Your task to perform on an android device: turn off notifications settings in the gmail app Image 0: 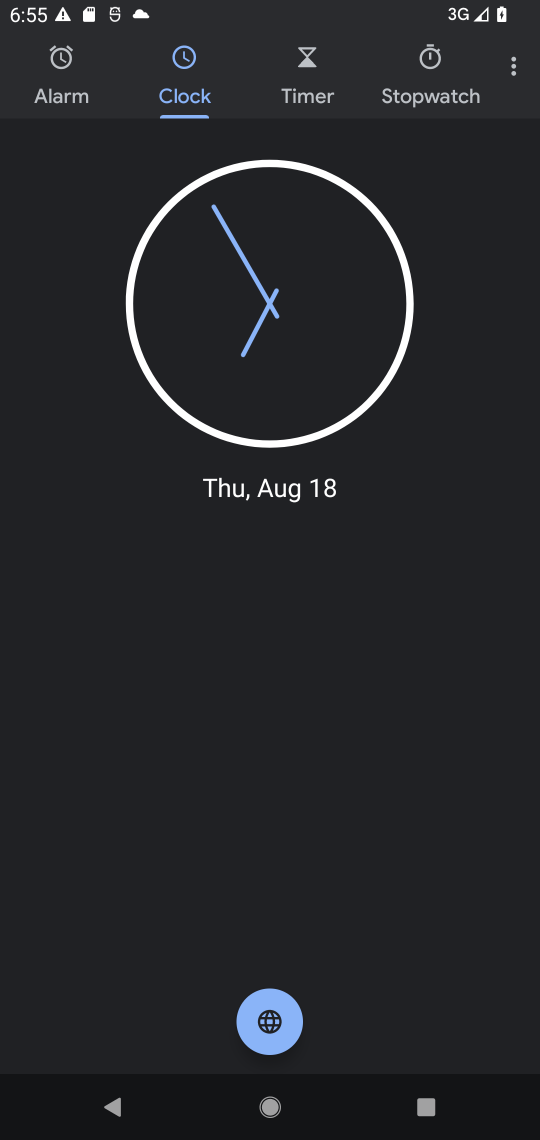
Step 0: press home button
Your task to perform on an android device: turn off notifications settings in the gmail app Image 1: 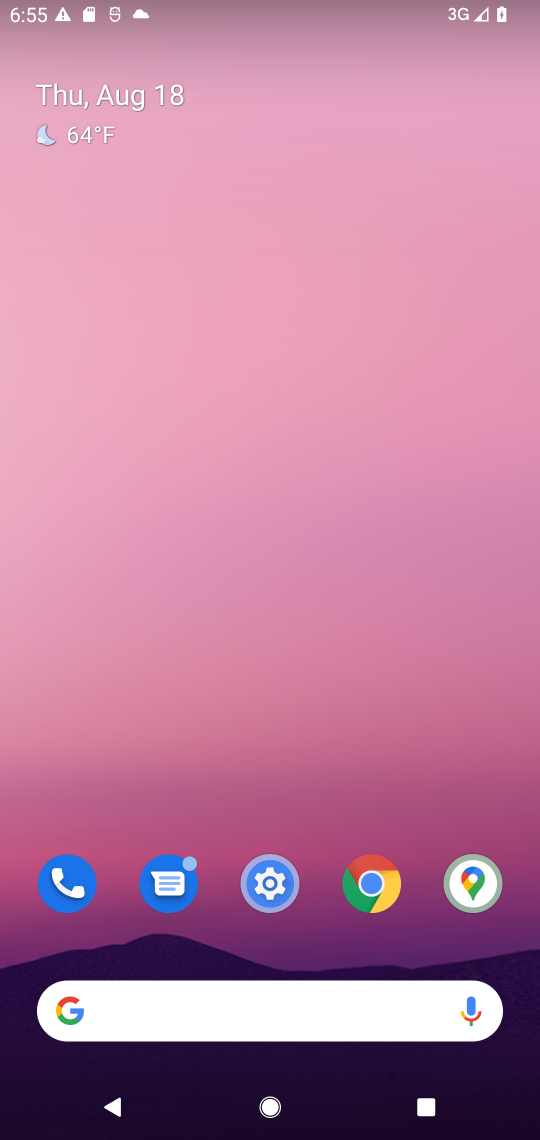
Step 1: drag from (34, 1062) to (69, 419)
Your task to perform on an android device: turn off notifications settings in the gmail app Image 2: 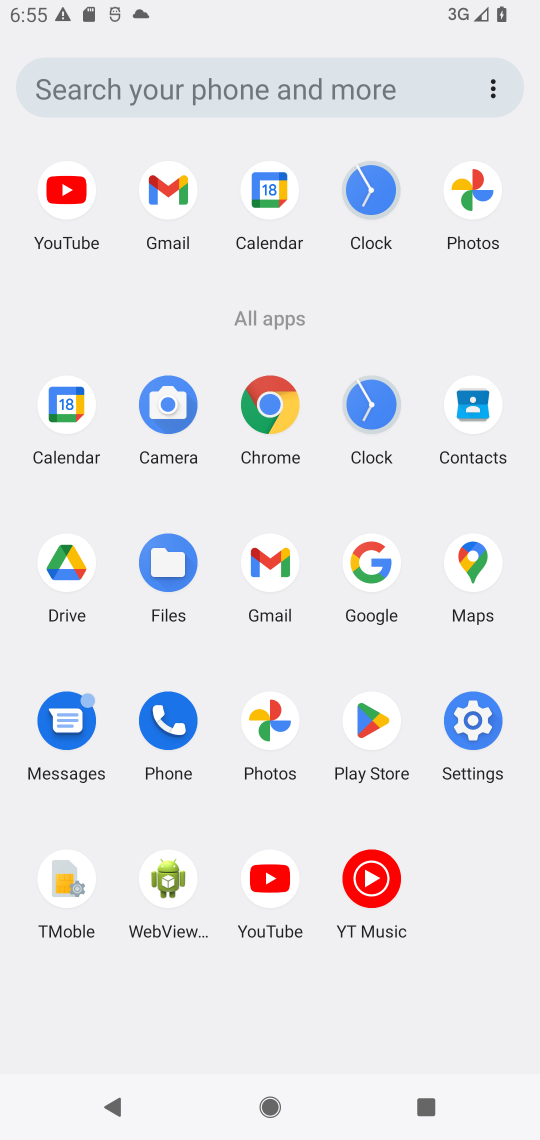
Step 2: click (280, 578)
Your task to perform on an android device: turn off notifications settings in the gmail app Image 3: 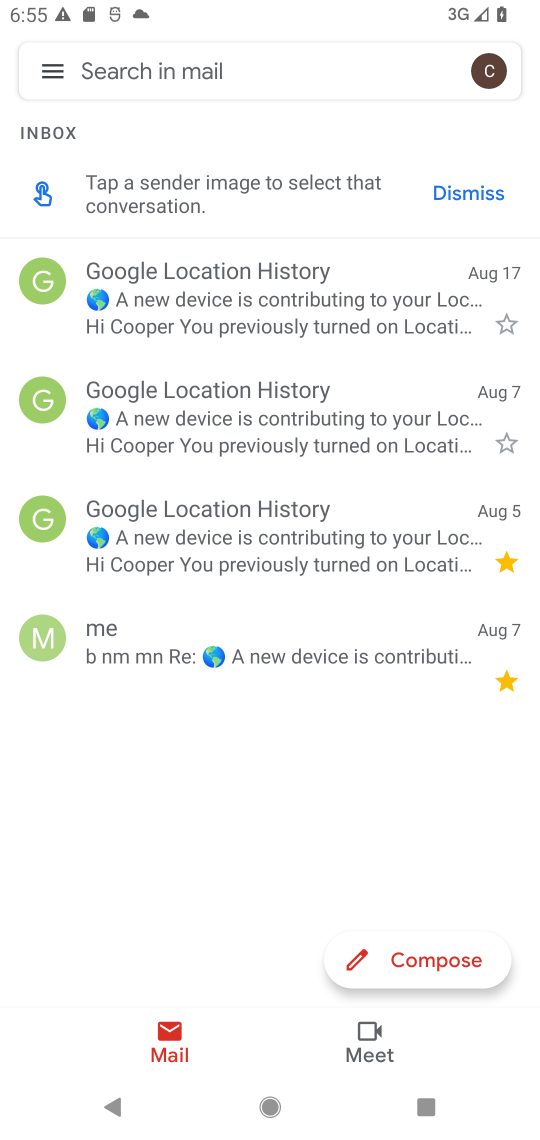
Step 3: click (50, 84)
Your task to perform on an android device: turn off notifications settings in the gmail app Image 4: 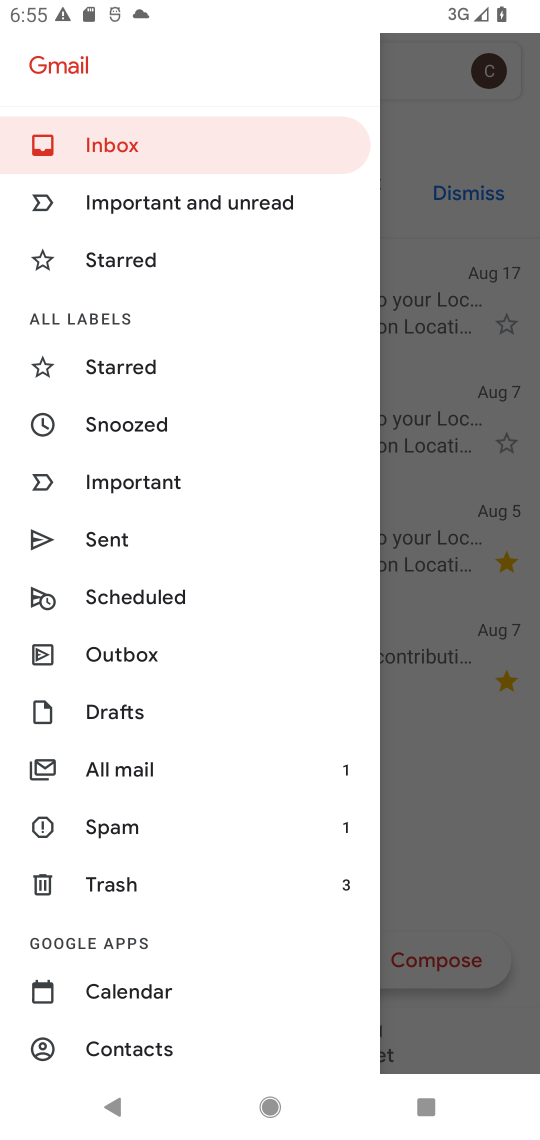
Step 4: drag from (273, 1023) to (204, 520)
Your task to perform on an android device: turn off notifications settings in the gmail app Image 5: 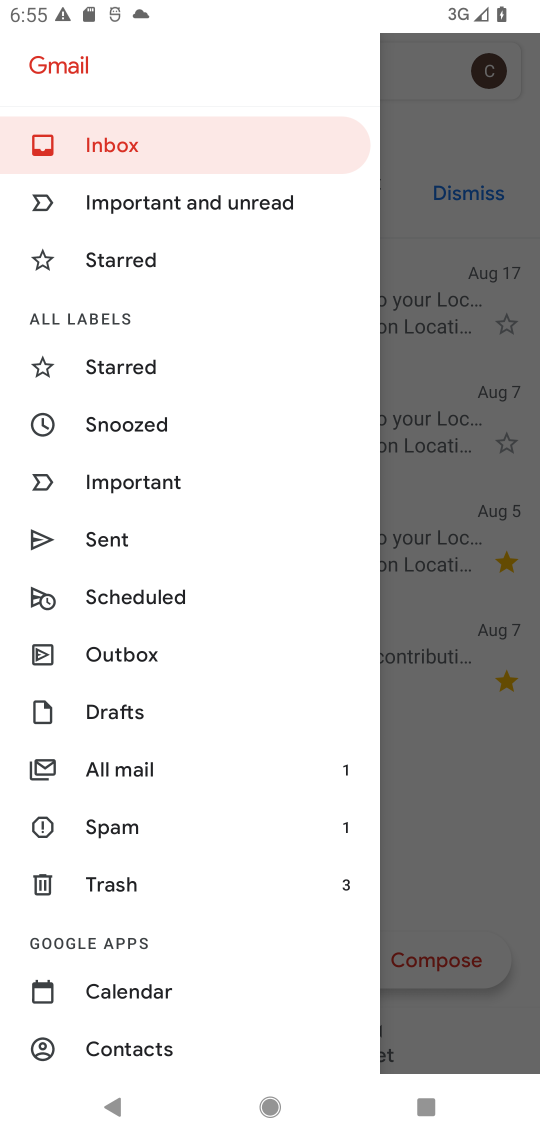
Step 5: drag from (252, 992) to (428, 243)
Your task to perform on an android device: turn off notifications settings in the gmail app Image 6: 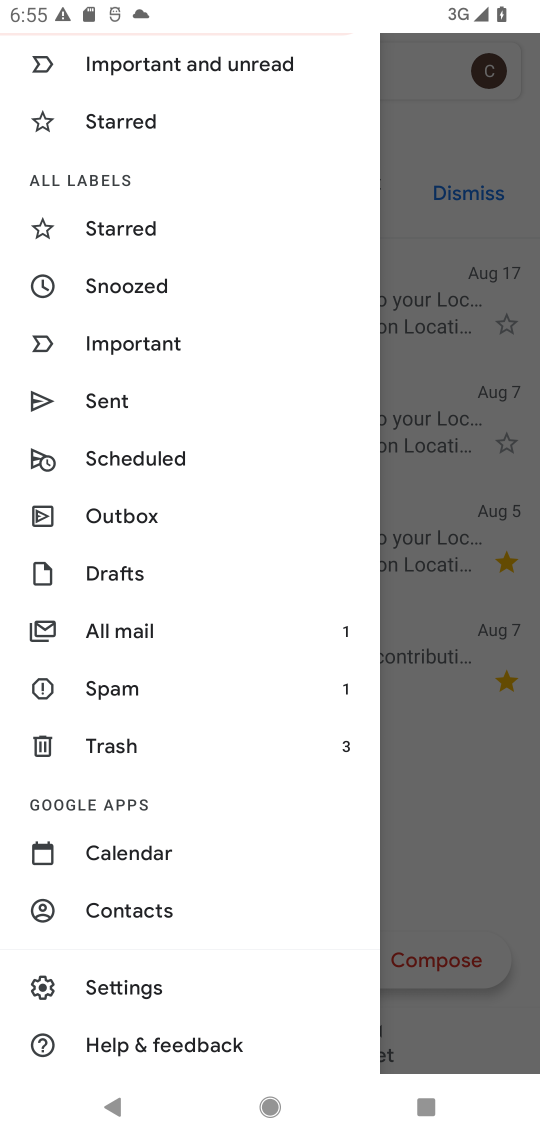
Step 6: click (104, 982)
Your task to perform on an android device: turn off notifications settings in the gmail app Image 7: 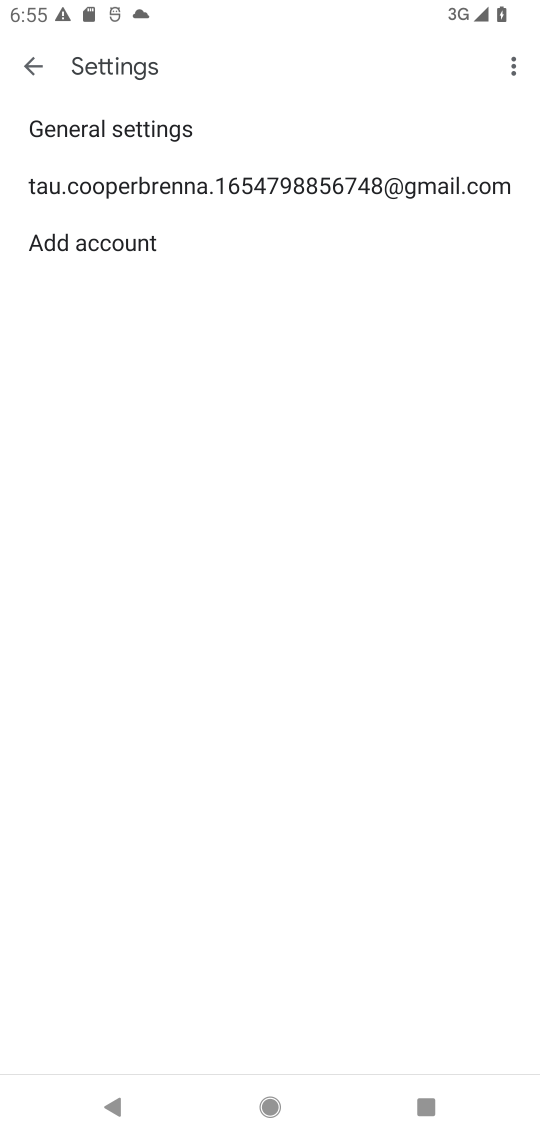
Step 7: click (280, 191)
Your task to perform on an android device: turn off notifications settings in the gmail app Image 8: 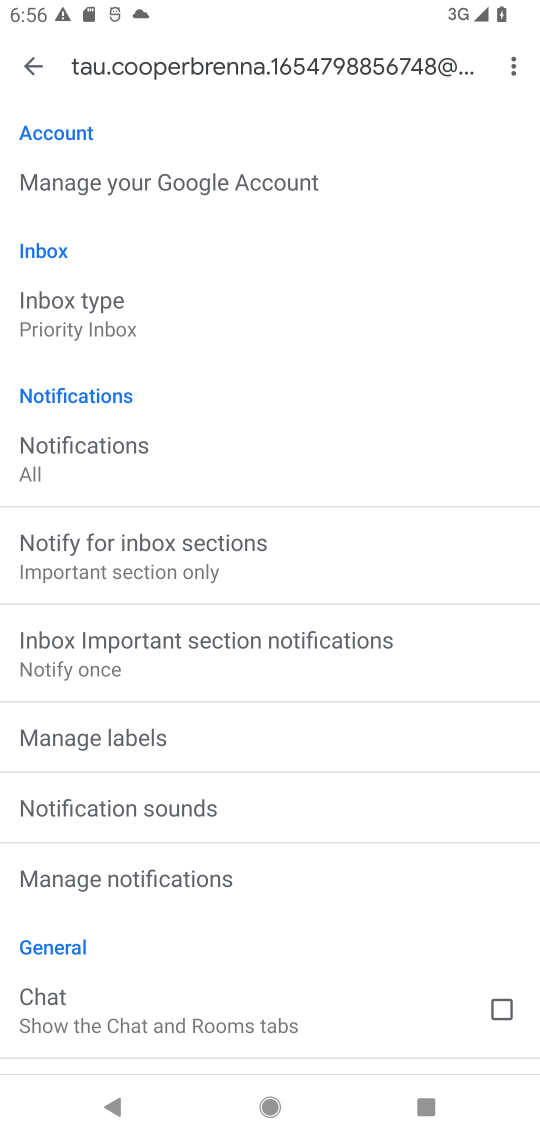
Step 8: click (118, 461)
Your task to perform on an android device: turn off notifications settings in the gmail app Image 9: 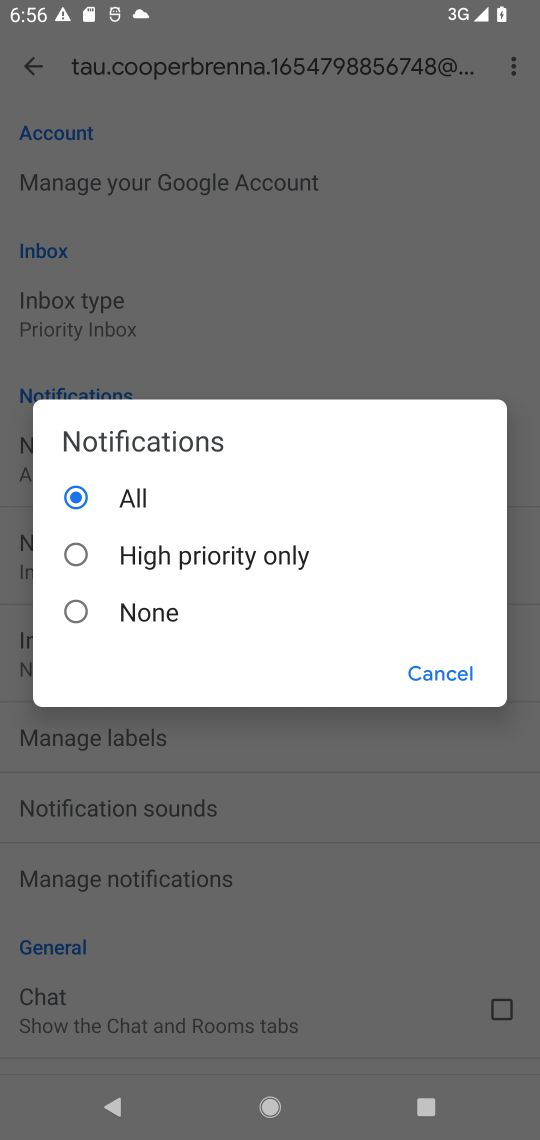
Step 9: click (436, 670)
Your task to perform on an android device: turn off notifications settings in the gmail app Image 10: 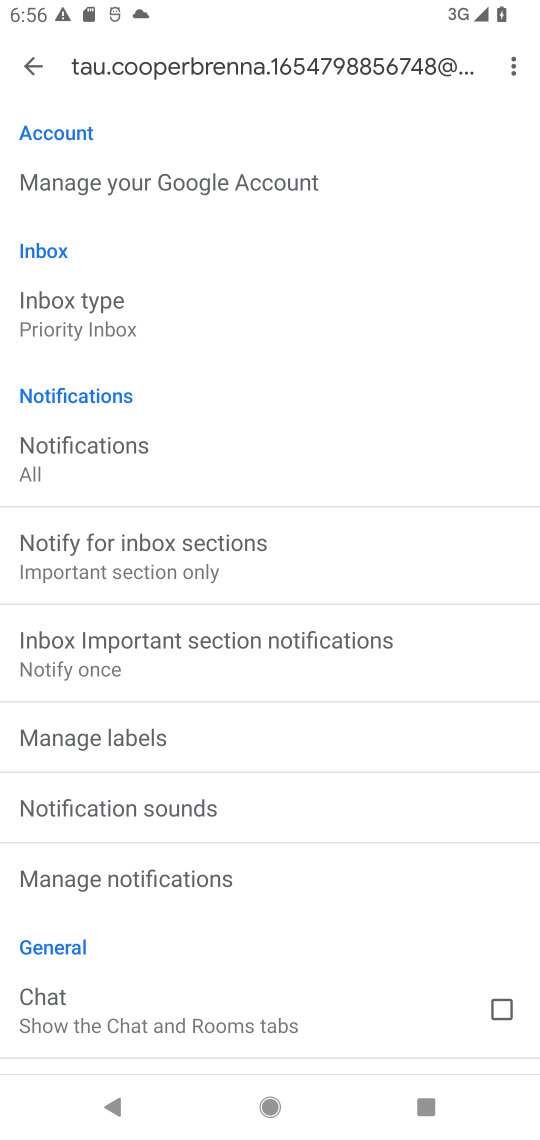
Step 10: click (142, 895)
Your task to perform on an android device: turn off notifications settings in the gmail app Image 11: 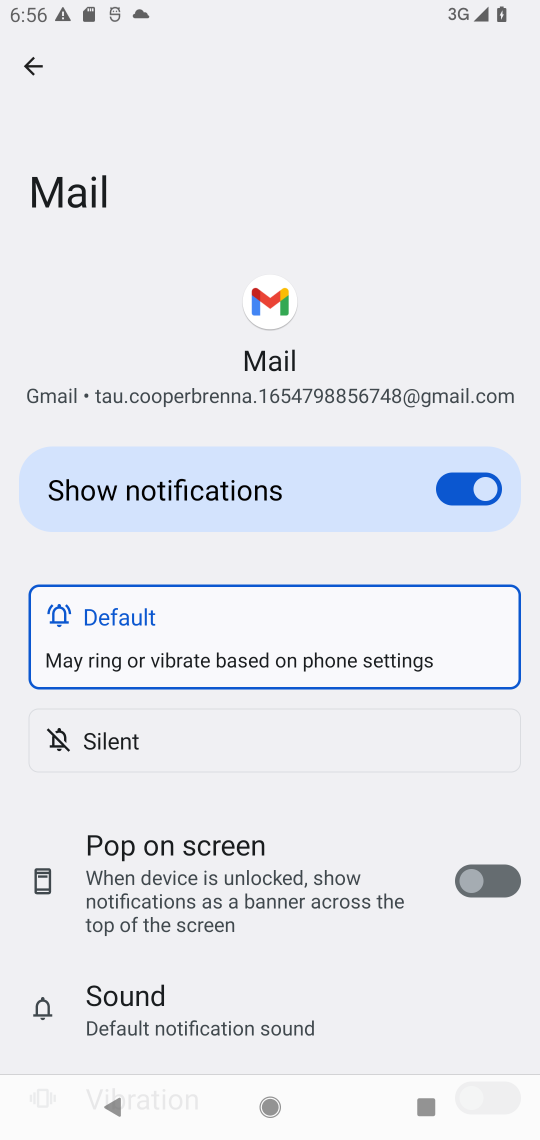
Step 11: click (451, 478)
Your task to perform on an android device: turn off notifications settings in the gmail app Image 12: 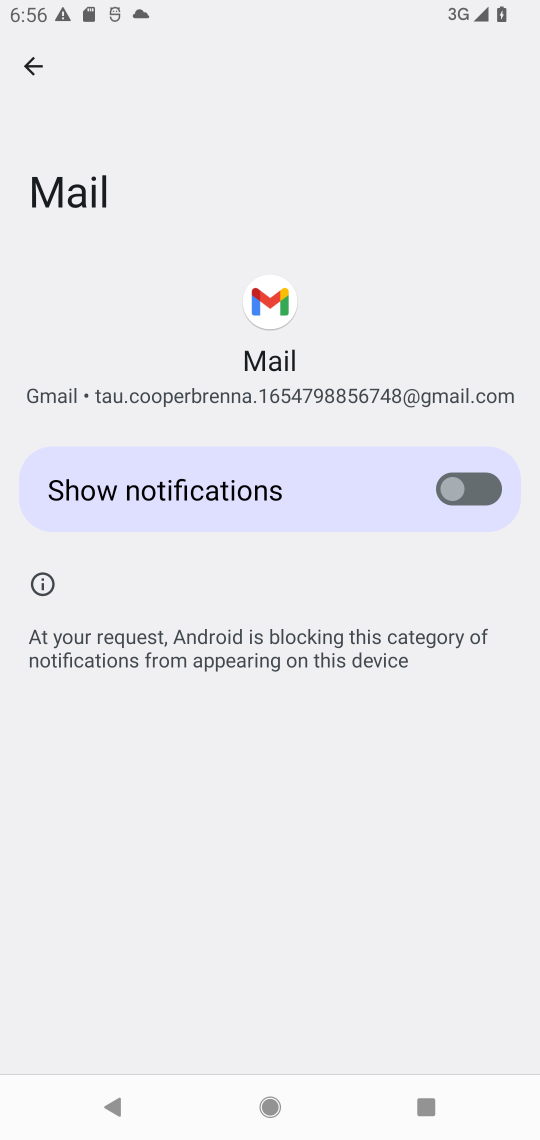
Step 12: task complete